Your task to perform on an android device: turn smart compose on in the gmail app Image 0: 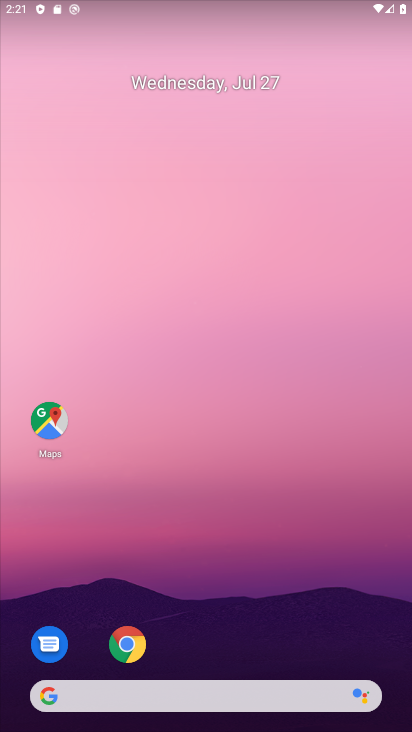
Step 0: drag from (206, 609) to (208, 18)
Your task to perform on an android device: turn smart compose on in the gmail app Image 1: 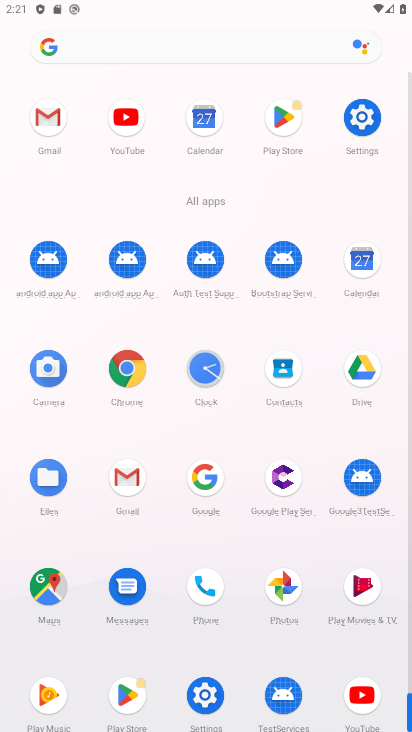
Step 1: click (132, 490)
Your task to perform on an android device: turn smart compose on in the gmail app Image 2: 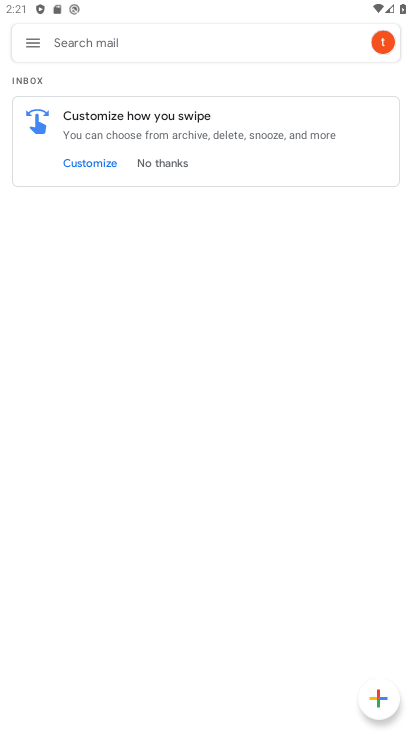
Step 2: click (38, 40)
Your task to perform on an android device: turn smart compose on in the gmail app Image 3: 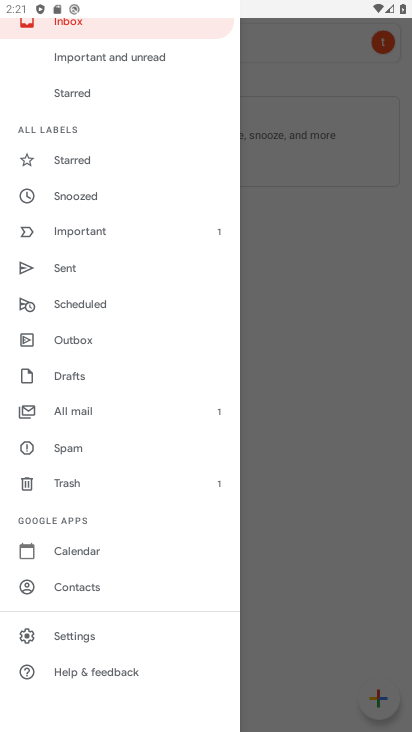
Step 3: click (85, 638)
Your task to perform on an android device: turn smart compose on in the gmail app Image 4: 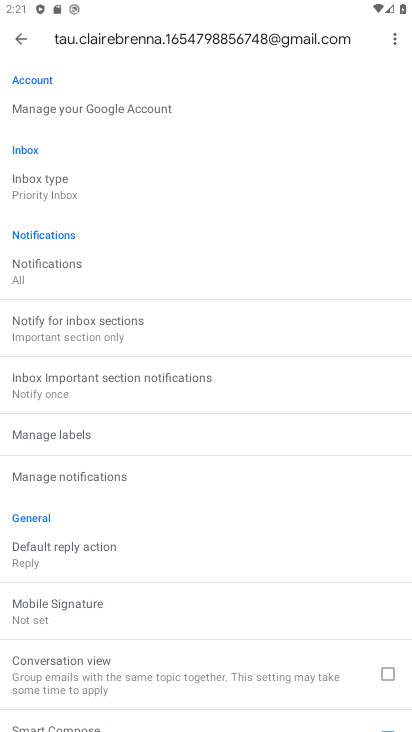
Step 4: task complete